Your task to perform on an android device: Open my contact list Image 0: 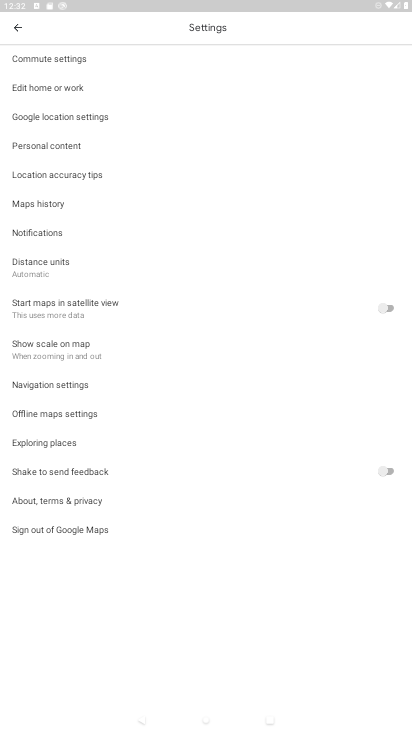
Step 0: press home button
Your task to perform on an android device: Open my contact list Image 1: 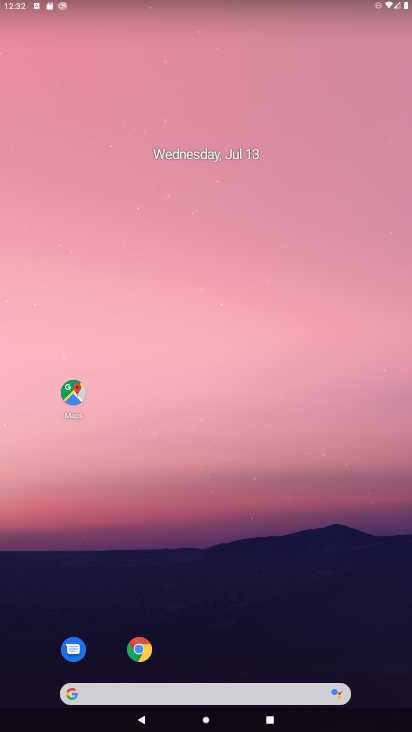
Step 1: drag from (379, 670) to (334, 96)
Your task to perform on an android device: Open my contact list Image 2: 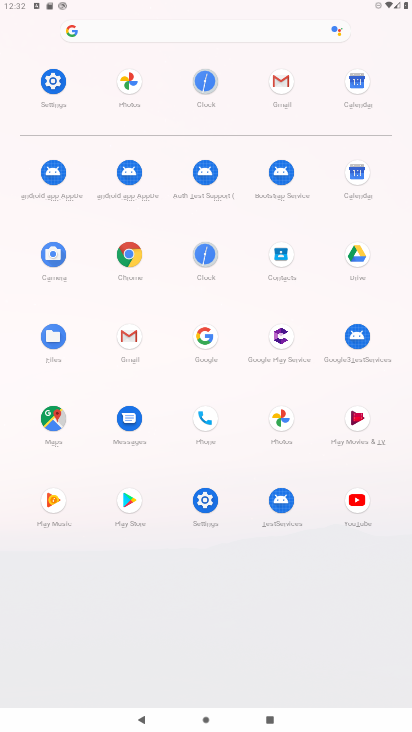
Step 2: click (280, 256)
Your task to perform on an android device: Open my contact list Image 3: 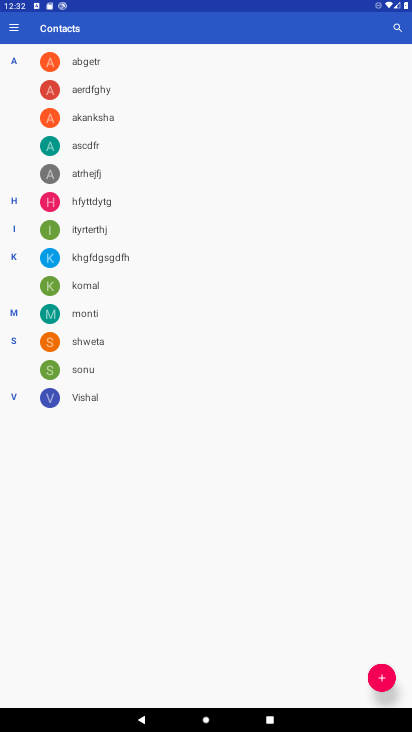
Step 3: task complete